Your task to perform on an android device: change the clock display to analog Image 0: 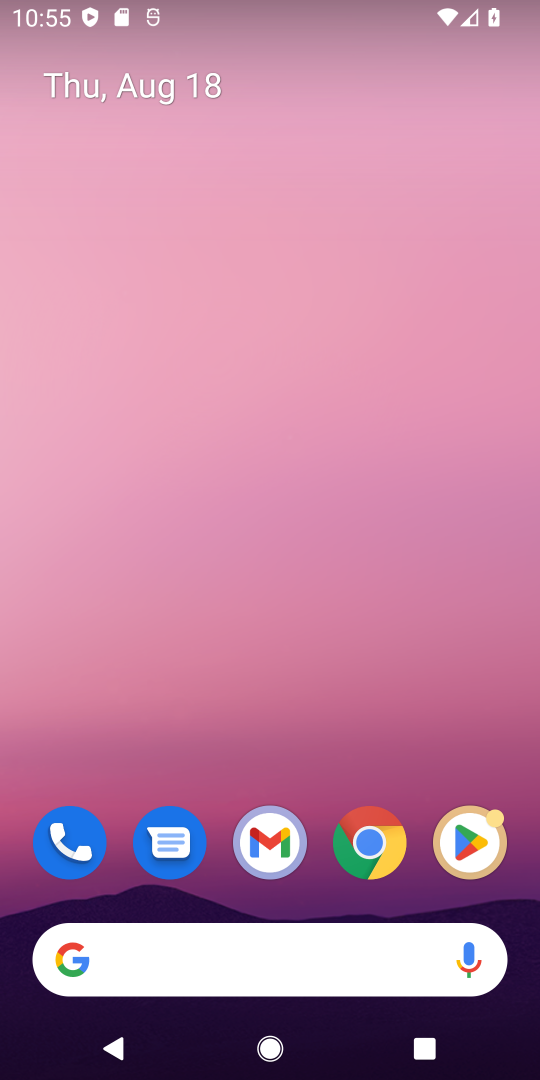
Step 0: drag from (314, 890) to (347, 433)
Your task to perform on an android device: change the clock display to analog Image 1: 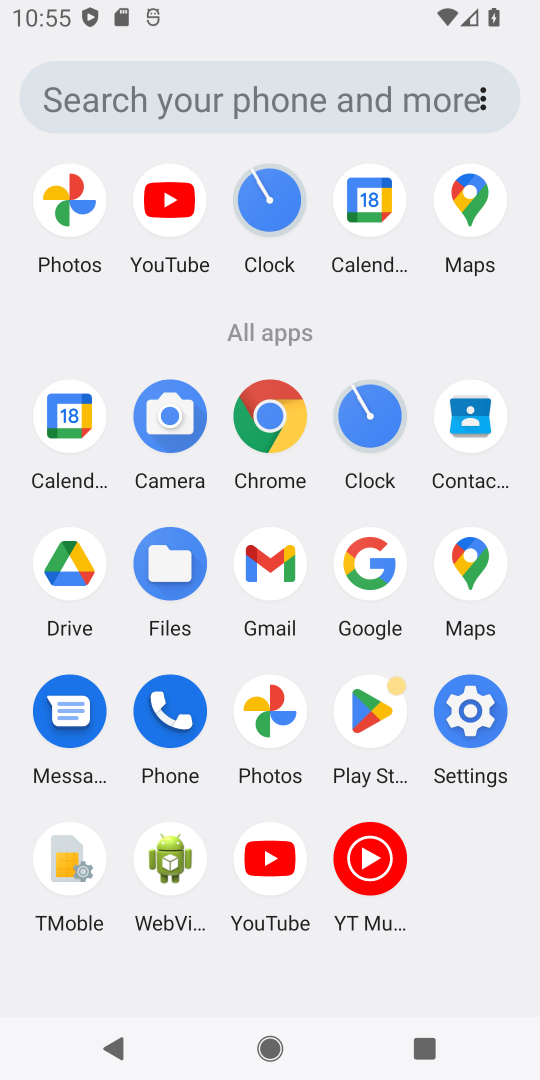
Step 1: click (267, 195)
Your task to perform on an android device: change the clock display to analog Image 2: 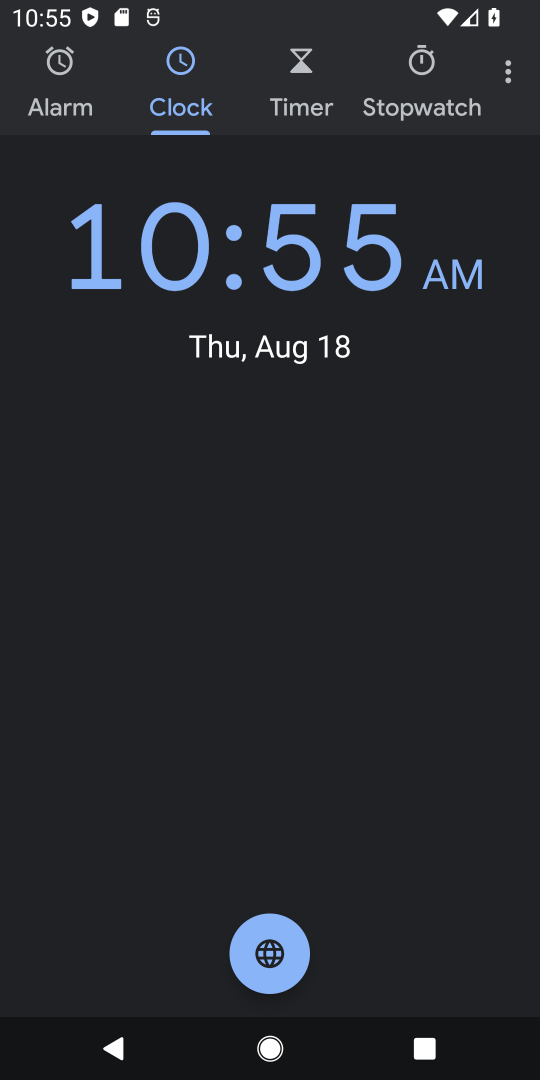
Step 2: click (519, 78)
Your task to perform on an android device: change the clock display to analog Image 3: 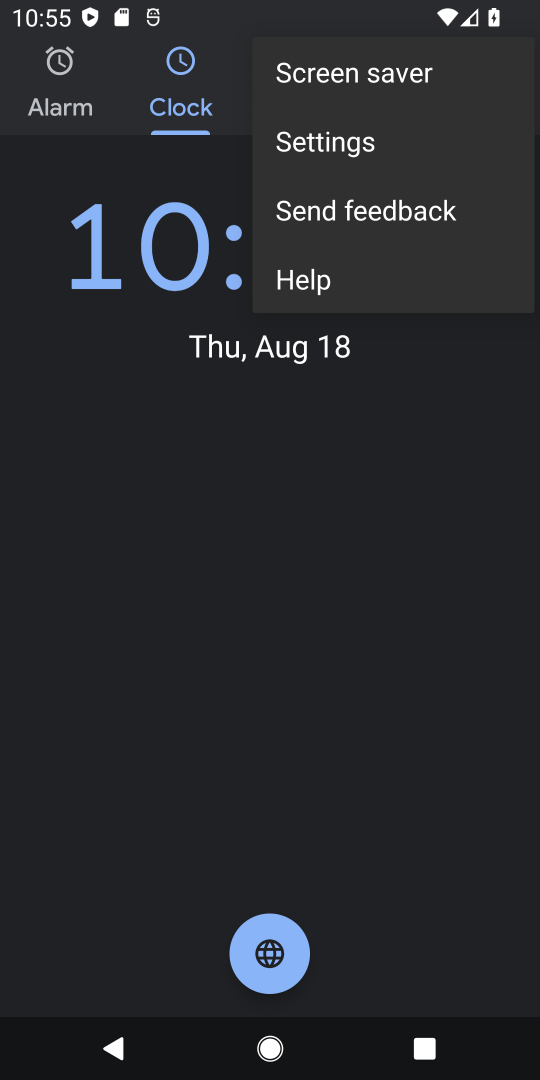
Step 3: click (351, 161)
Your task to perform on an android device: change the clock display to analog Image 4: 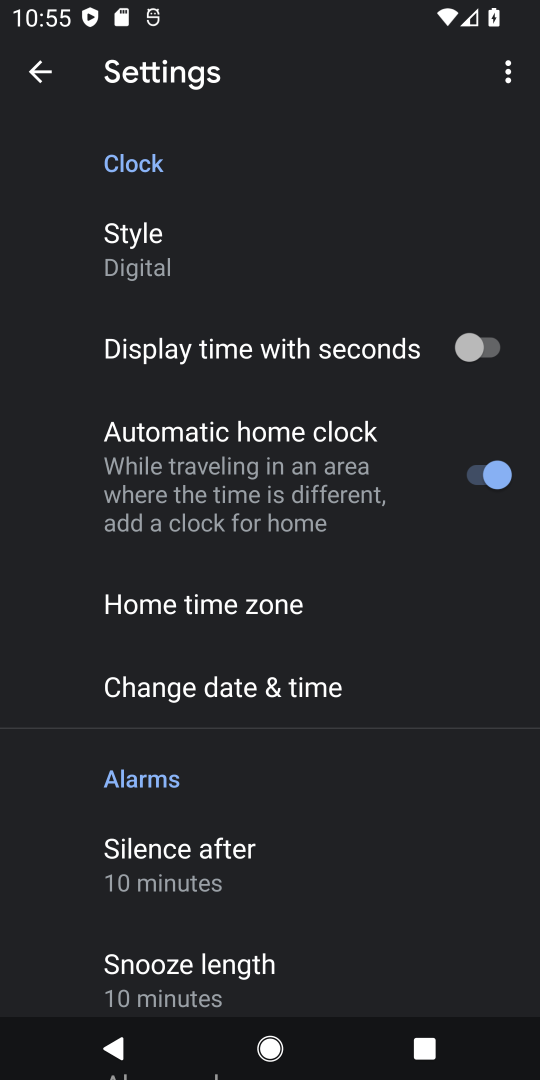
Step 4: click (246, 246)
Your task to perform on an android device: change the clock display to analog Image 5: 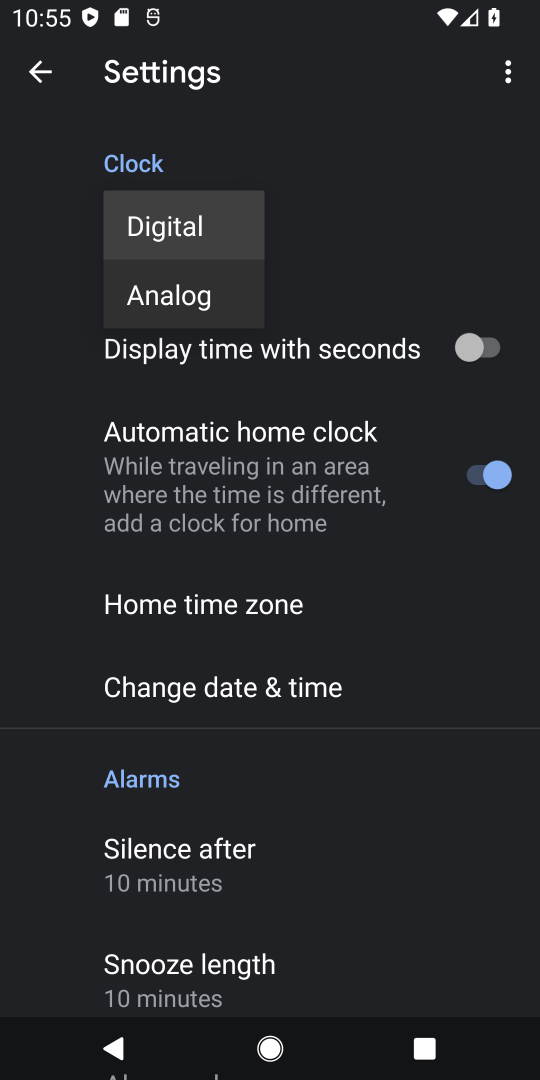
Step 5: click (228, 284)
Your task to perform on an android device: change the clock display to analog Image 6: 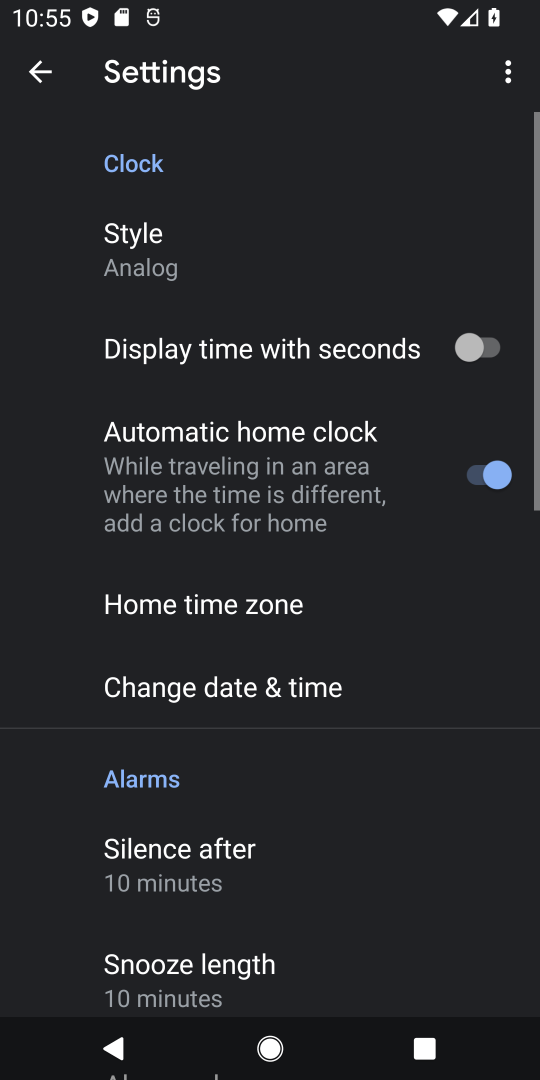
Step 6: task complete